Your task to perform on an android device: Empty the shopping cart on walmart. Add "logitech g933" to the cart on walmart Image 0: 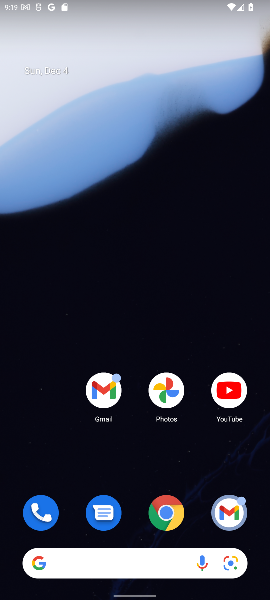
Step 0: click (162, 513)
Your task to perform on an android device: Empty the shopping cart on walmart. Add "logitech g933" to the cart on walmart Image 1: 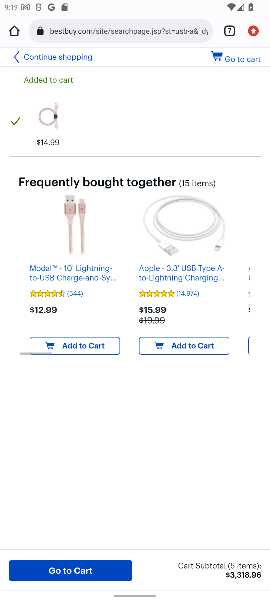
Step 1: click (228, 28)
Your task to perform on an android device: Empty the shopping cart on walmart. Add "logitech g933" to the cart on walmart Image 2: 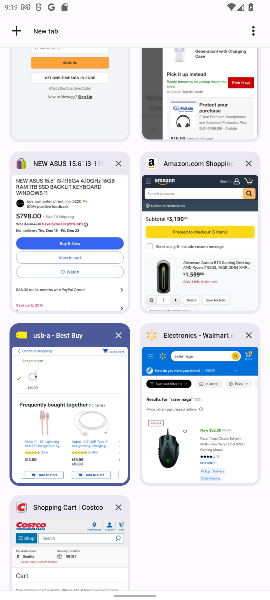
Step 2: click (200, 414)
Your task to perform on an android device: Empty the shopping cart on walmart. Add "logitech g933" to the cart on walmart Image 3: 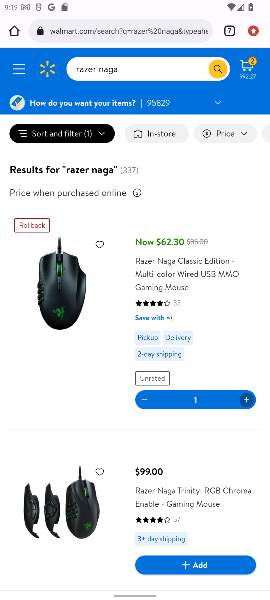
Step 3: click (134, 66)
Your task to perform on an android device: Empty the shopping cart on walmart. Add "logitech g933" to the cart on walmart Image 4: 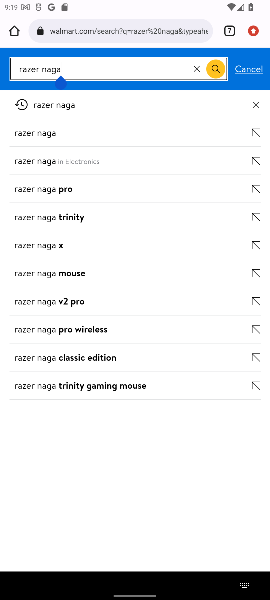
Step 4: click (194, 68)
Your task to perform on an android device: Empty the shopping cart on walmart. Add "logitech g933" to the cart on walmart Image 5: 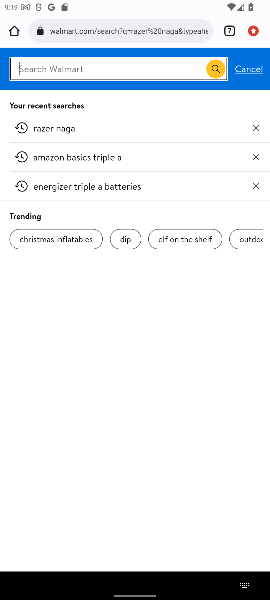
Step 5: type "logitech g933"
Your task to perform on an android device: Empty the shopping cart on walmart. Add "logitech g933" to the cart on walmart Image 6: 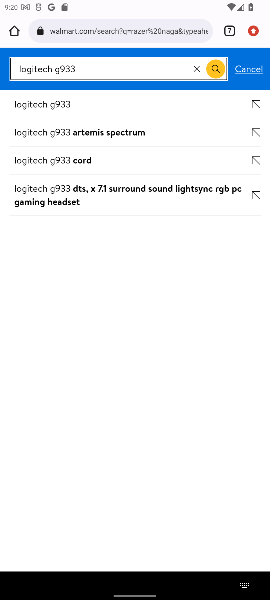
Step 6: click (47, 102)
Your task to perform on an android device: Empty the shopping cart on walmart. Add "logitech g933" to the cart on walmart Image 7: 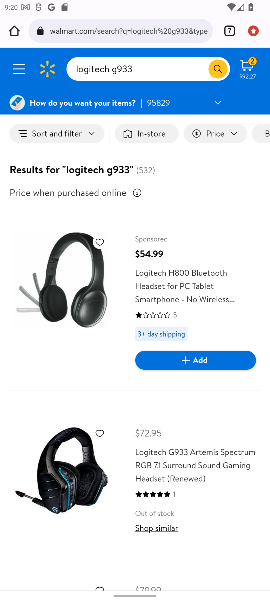
Step 7: drag from (159, 442) to (197, 158)
Your task to perform on an android device: Empty the shopping cart on walmart. Add "logitech g933" to the cart on walmart Image 8: 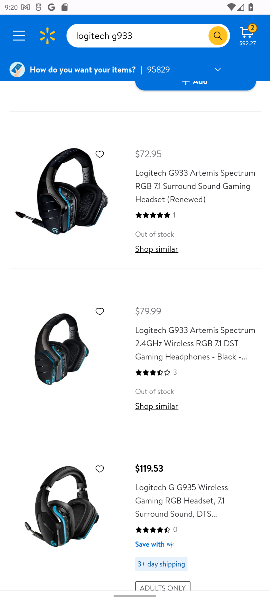
Step 8: click (196, 175)
Your task to perform on an android device: Empty the shopping cart on walmart. Add "logitech g933" to the cart on walmart Image 9: 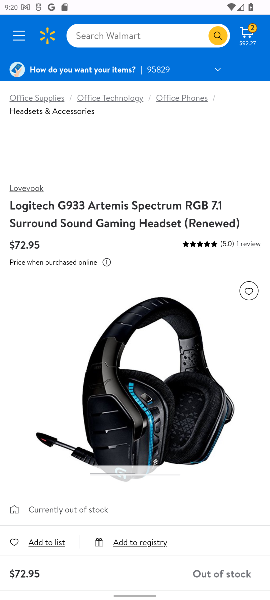
Step 9: task complete